Your task to perform on an android device: Open settings on Google Maps Image 0: 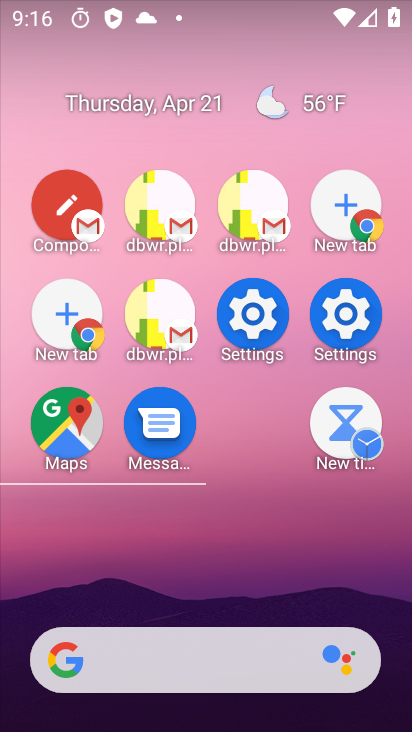
Step 0: drag from (284, 570) to (153, 51)
Your task to perform on an android device: Open settings on Google Maps Image 1: 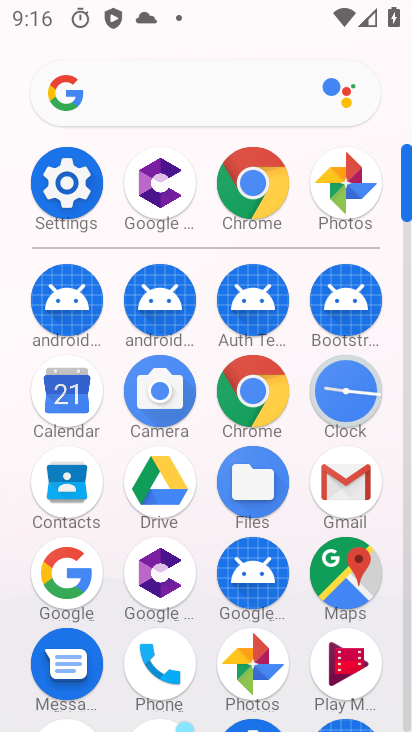
Step 1: click (348, 577)
Your task to perform on an android device: Open settings on Google Maps Image 2: 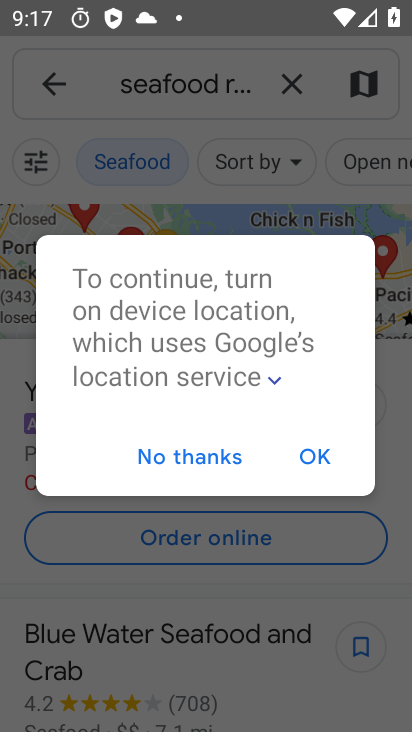
Step 2: click (307, 459)
Your task to perform on an android device: Open settings on Google Maps Image 3: 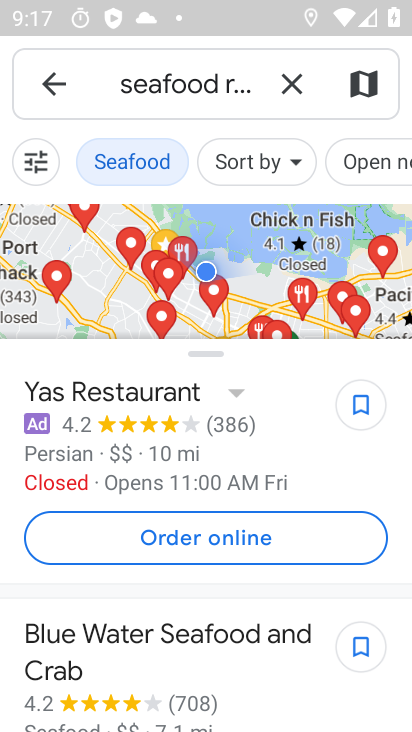
Step 3: click (54, 79)
Your task to perform on an android device: Open settings on Google Maps Image 4: 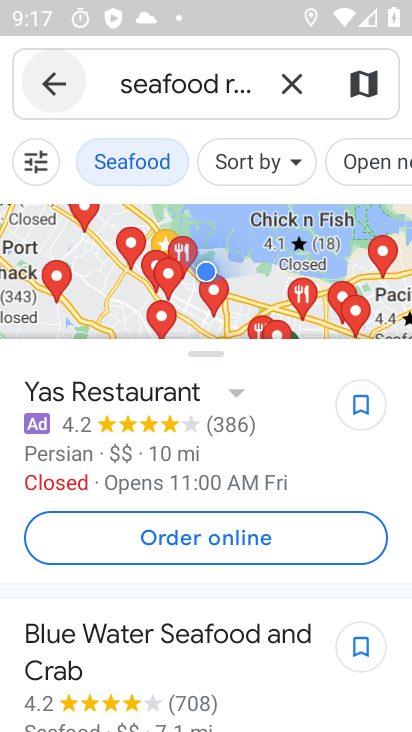
Step 4: click (54, 79)
Your task to perform on an android device: Open settings on Google Maps Image 5: 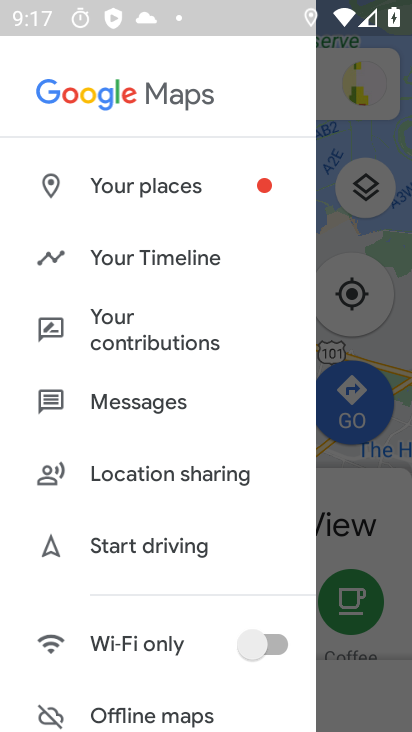
Step 5: click (385, 236)
Your task to perform on an android device: Open settings on Google Maps Image 6: 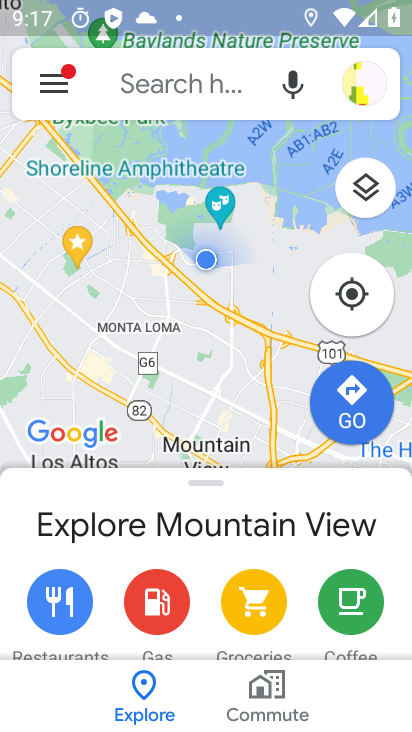
Step 6: task complete